Your task to perform on an android device: Go to Amazon Image 0: 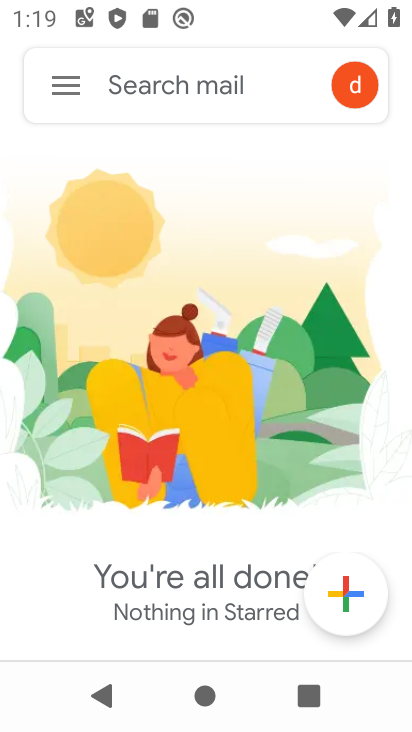
Step 0: press home button
Your task to perform on an android device: Go to Amazon Image 1: 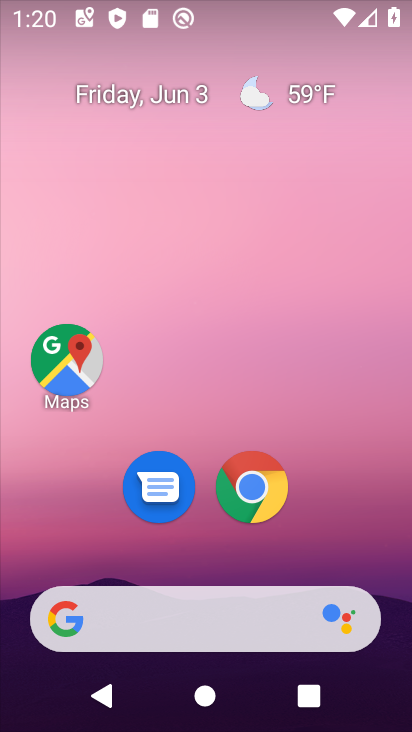
Step 1: click (251, 483)
Your task to perform on an android device: Go to Amazon Image 2: 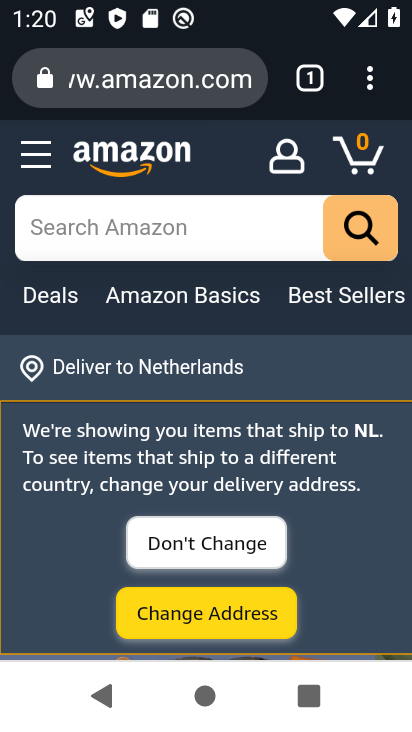
Step 2: task complete